Your task to perform on an android device: Open Yahoo.com Image 0: 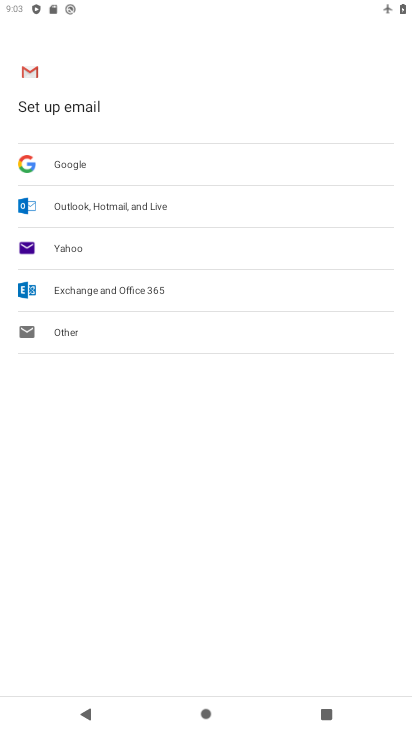
Step 0: press home button
Your task to perform on an android device: Open Yahoo.com Image 1: 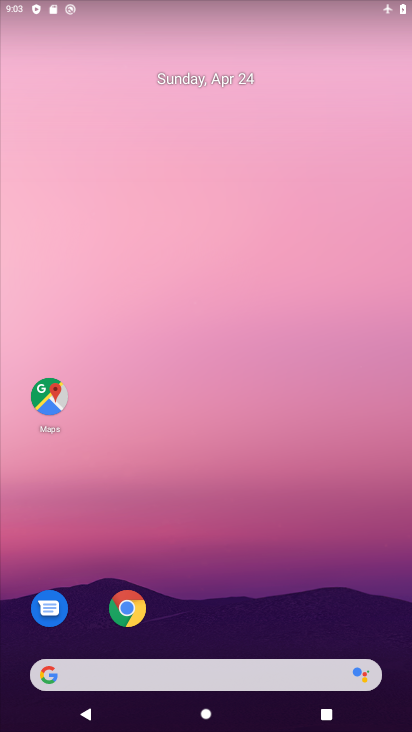
Step 1: click (136, 602)
Your task to perform on an android device: Open Yahoo.com Image 2: 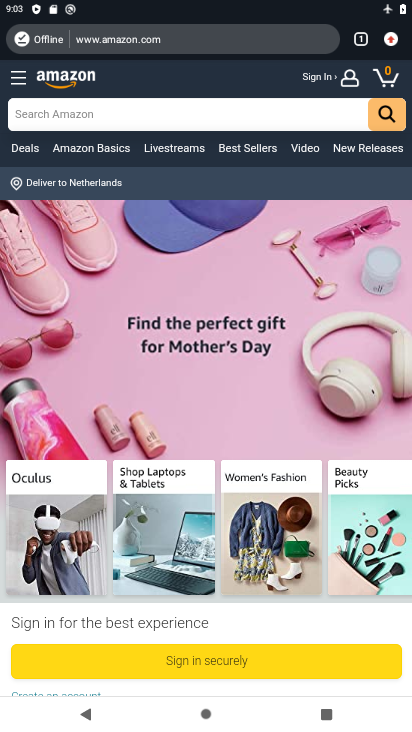
Step 2: click (357, 45)
Your task to perform on an android device: Open Yahoo.com Image 3: 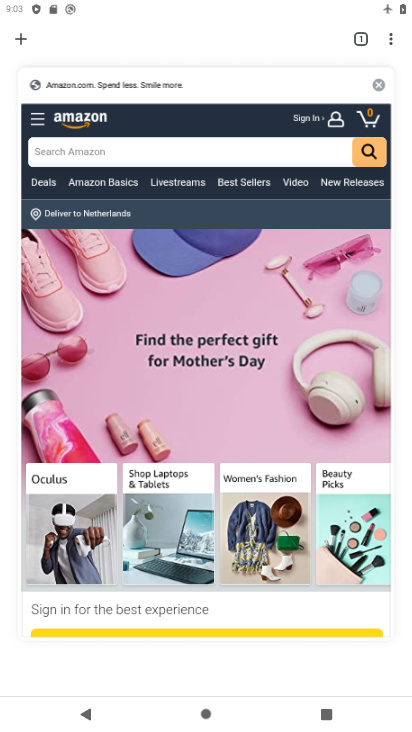
Step 3: click (26, 41)
Your task to perform on an android device: Open Yahoo.com Image 4: 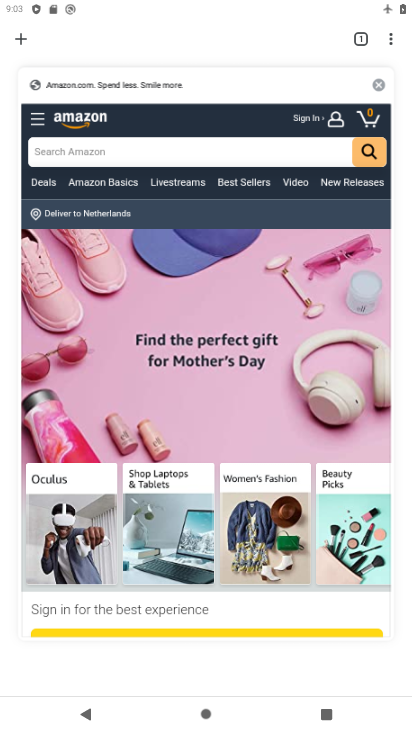
Step 4: click (20, 36)
Your task to perform on an android device: Open Yahoo.com Image 5: 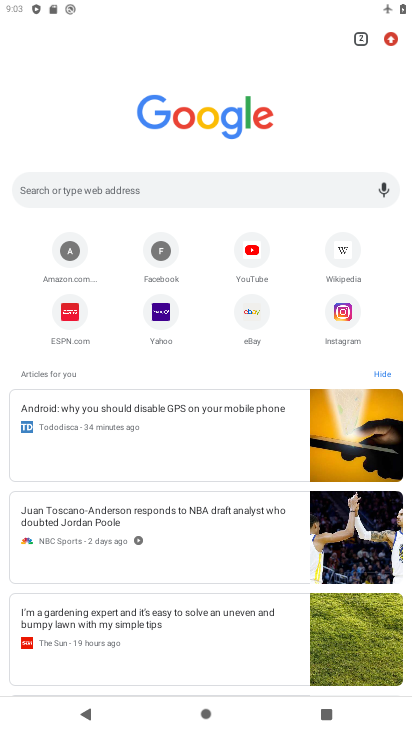
Step 5: click (167, 313)
Your task to perform on an android device: Open Yahoo.com Image 6: 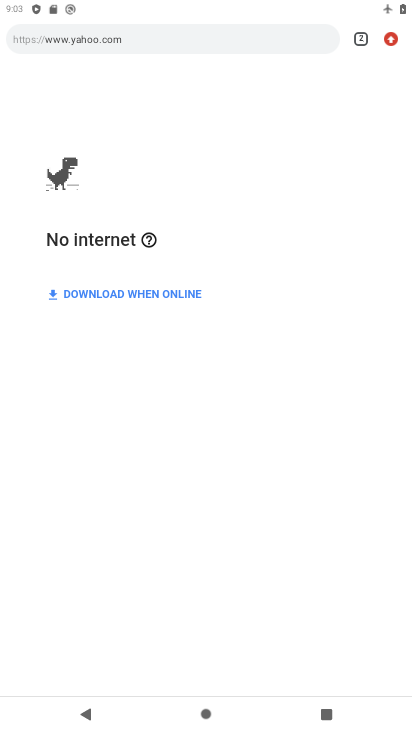
Step 6: task complete